Your task to perform on an android device: open app "Fetch Rewards" Image 0: 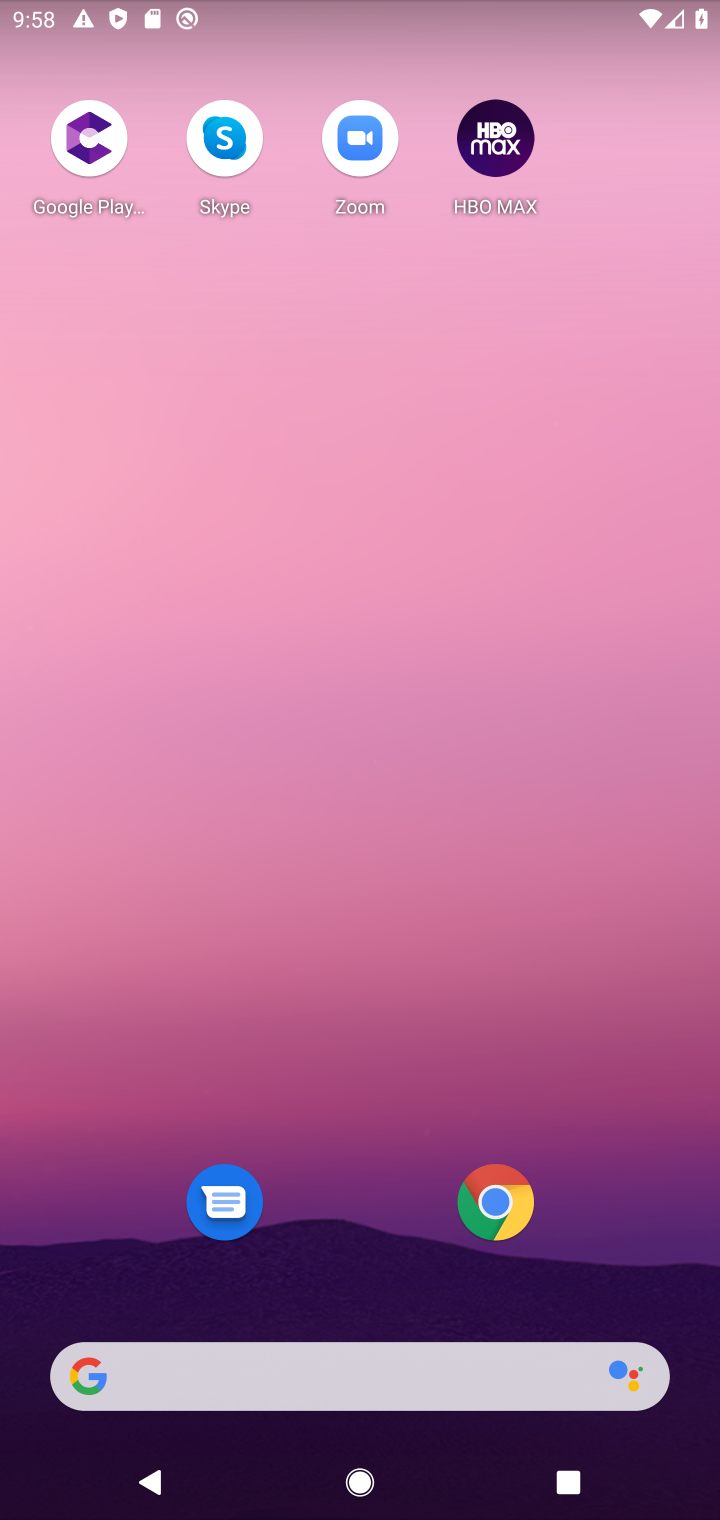
Step 0: click (333, 1399)
Your task to perform on an android device: open app "Fetch Rewards" Image 1: 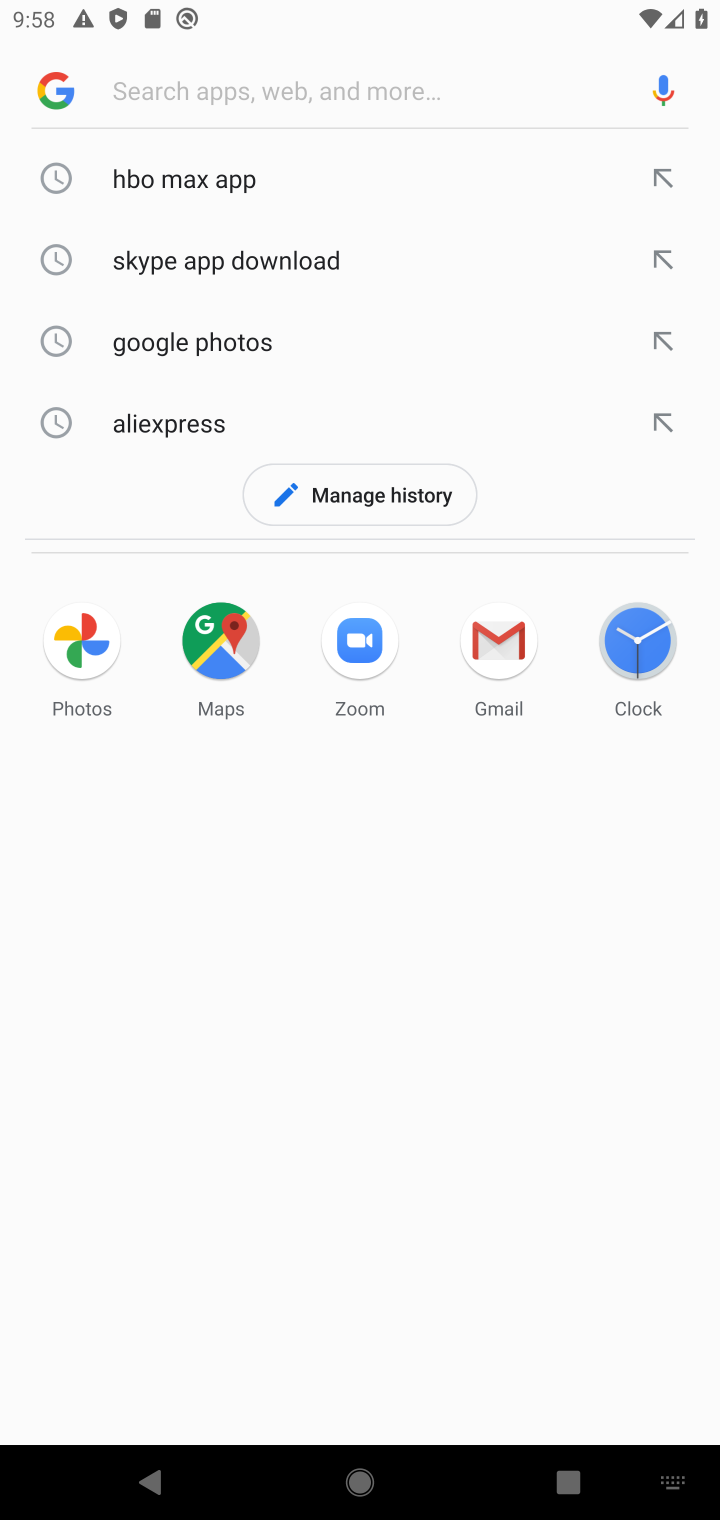
Step 1: type "fetch rewad"
Your task to perform on an android device: open app "Fetch Rewards" Image 2: 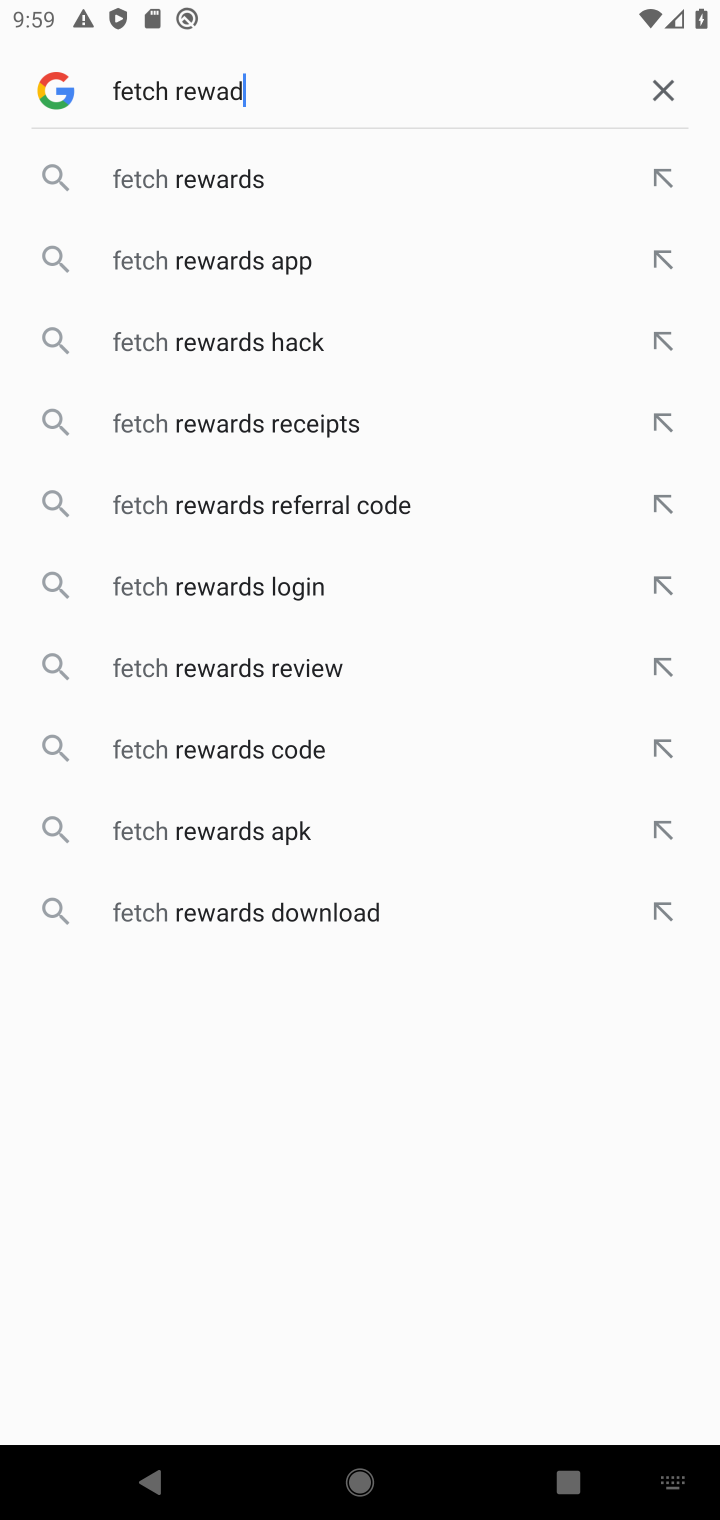
Step 2: click (261, 160)
Your task to perform on an android device: open app "Fetch Rewards" Image 3: 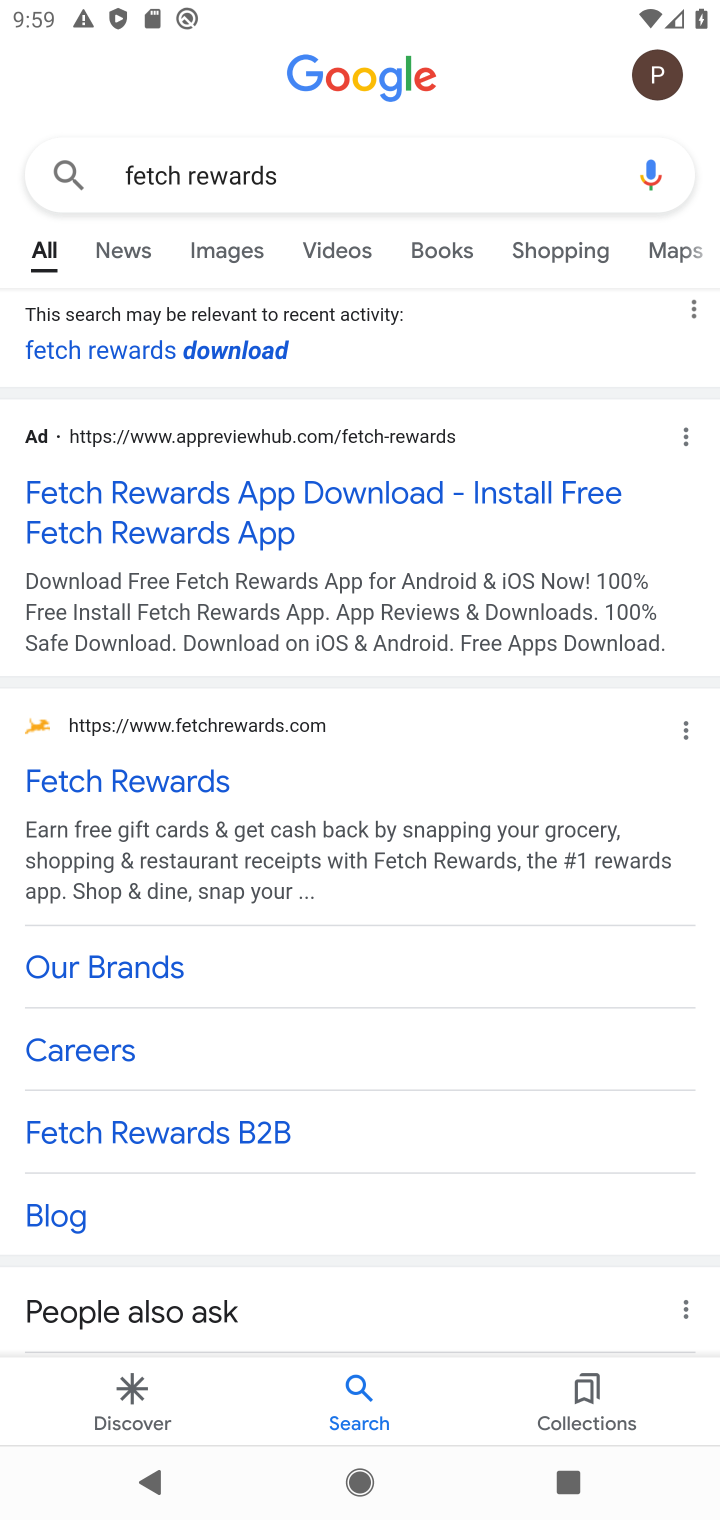
Step 3: drag from (252, 861) to (228, 229)
Your task to perform on an android device: open app "Fetch Rewards" Image 4: 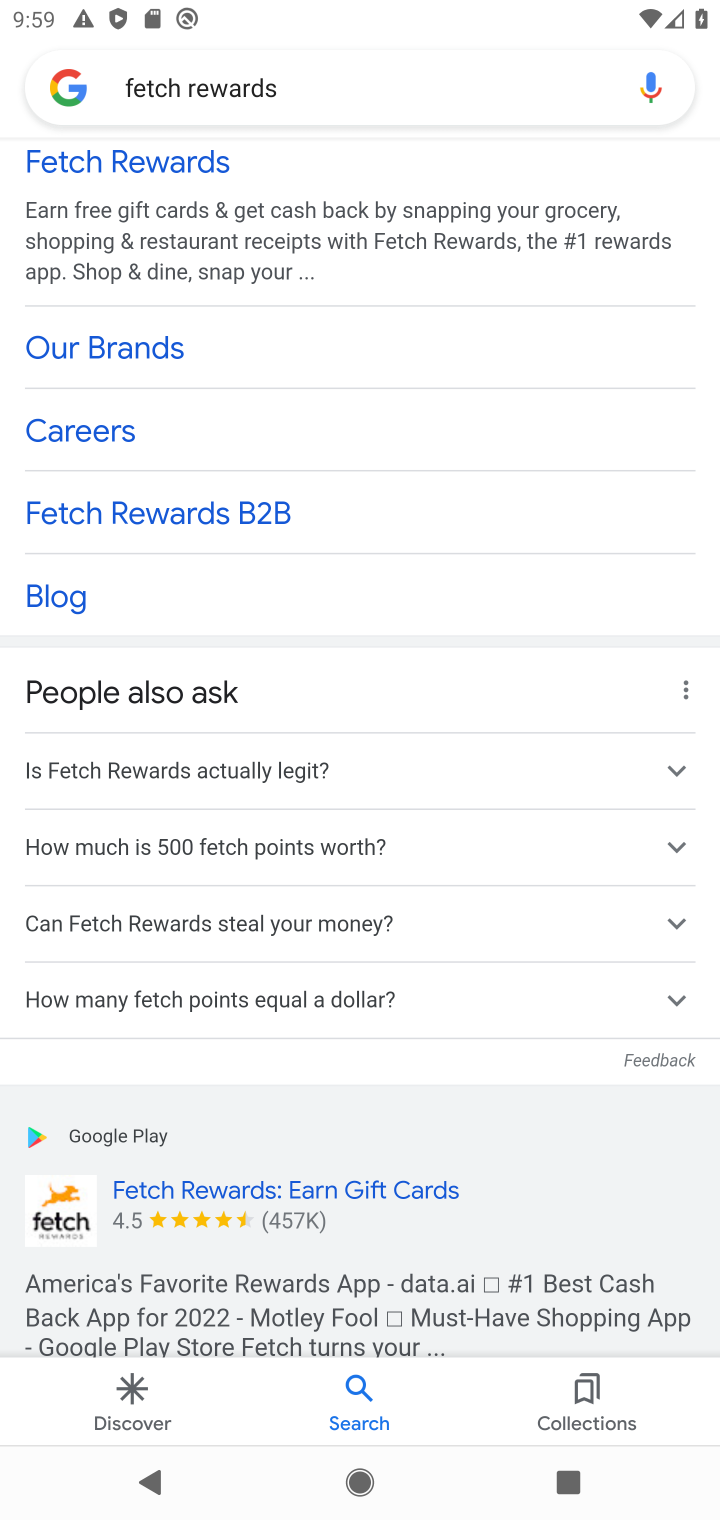
Step 4: click (521, 1248)
Your task to perform on an android device: open app "Fetch Rewards" Image 5: 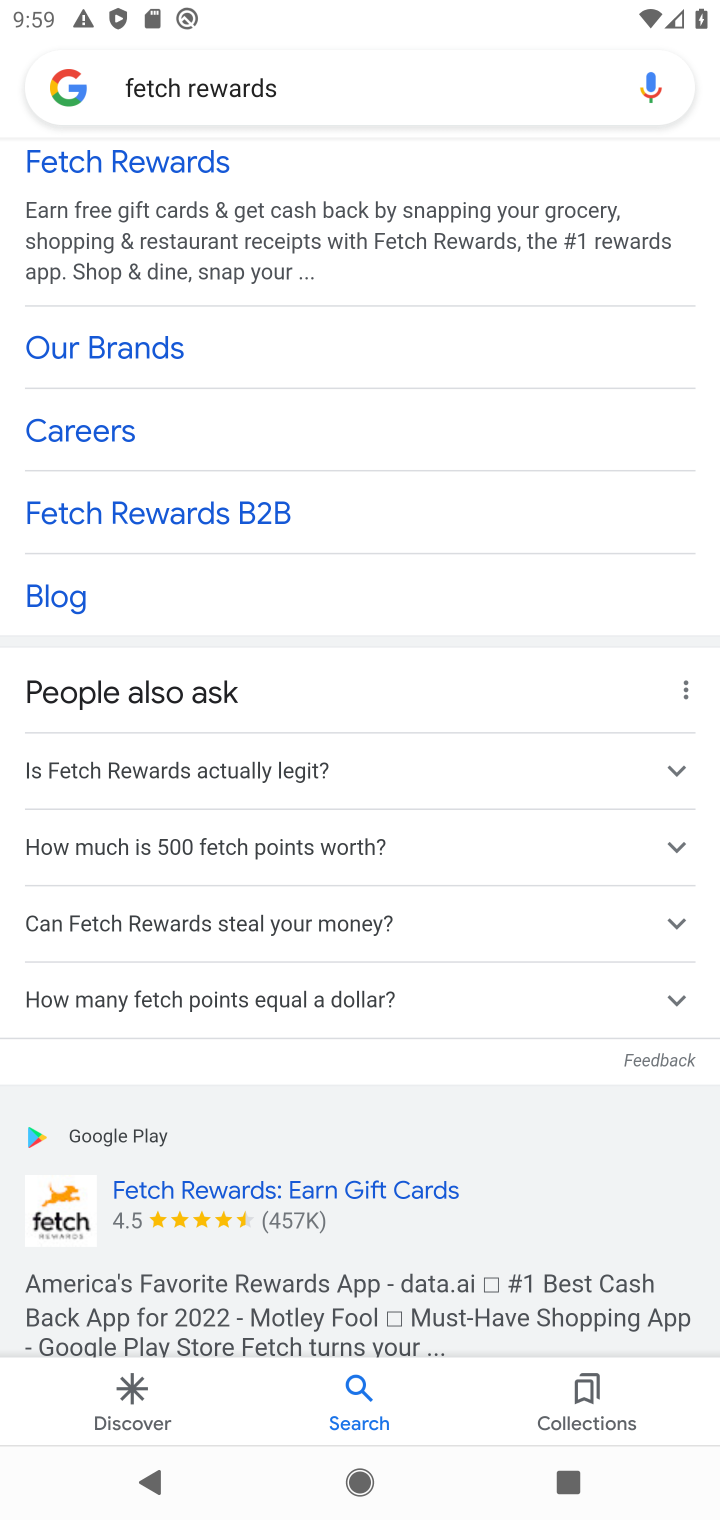
Step 5: click (521, 1248)
Your task to perform on an android device: open app "Fetch Rewards" Image 6: 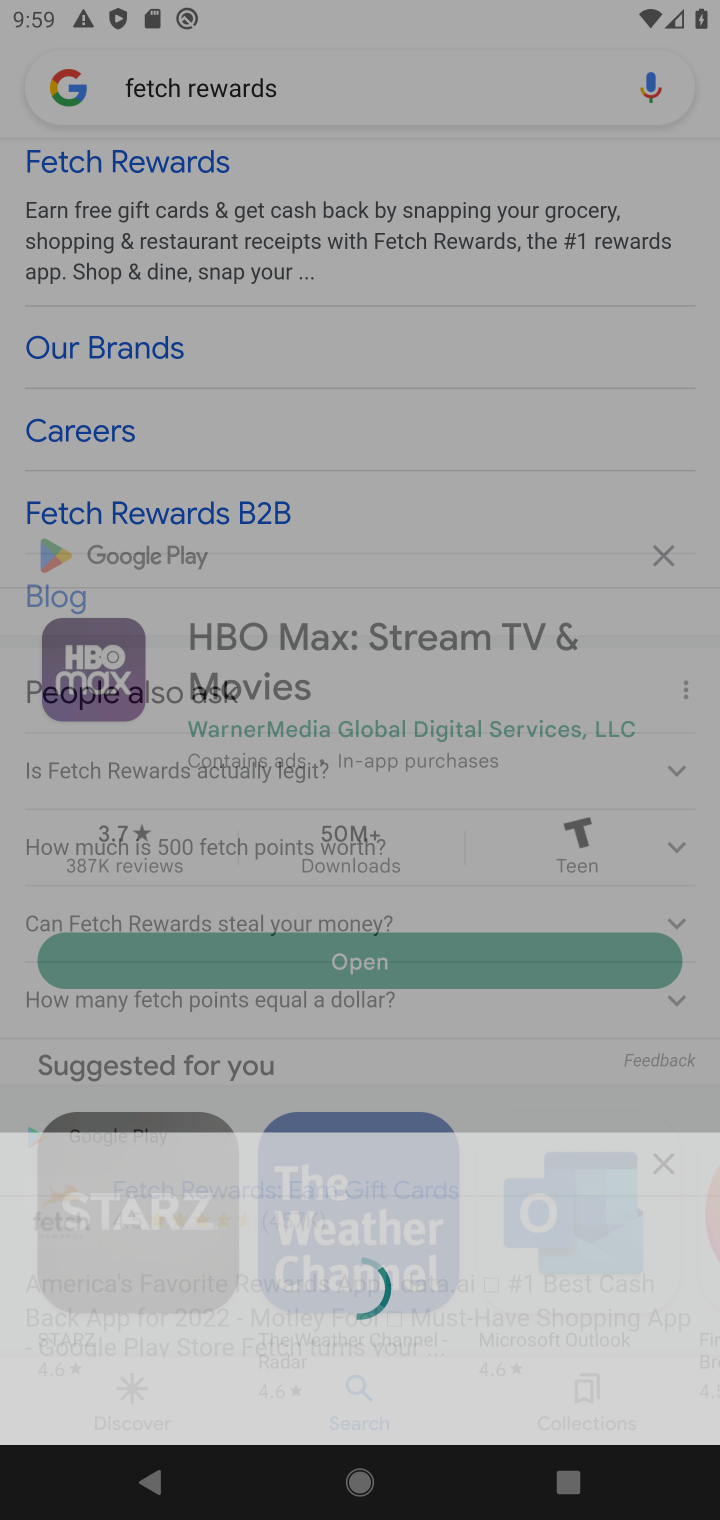
Step 6: task complete